Your task to perform on an android device: turn off location Image 0: 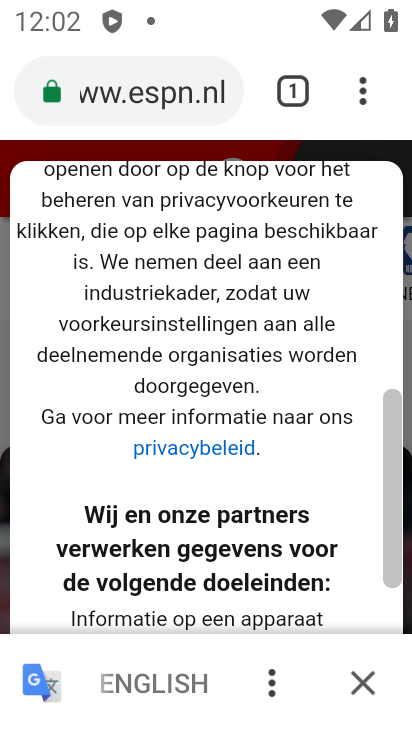
Step 0: press home button
Your task to perform on an android device: turn off location Image 1: 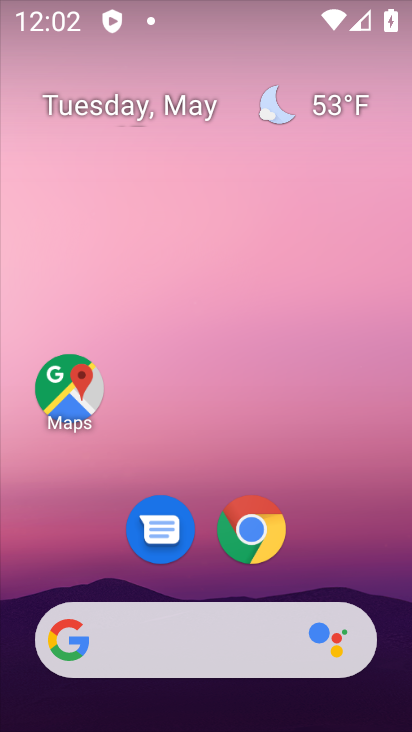
Step 1: drag from (203, 591) to (192, 34)
Your task to perform on an android device: turn off location Image 2: 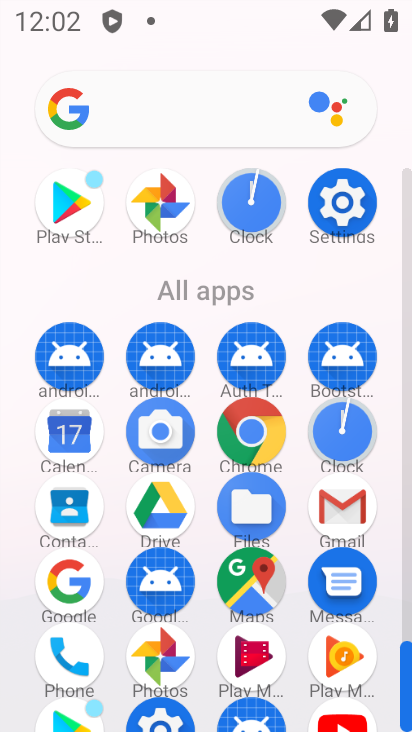
Step 2: click (334, 183)
Your task to perform on an android device: turn off location Image 3: 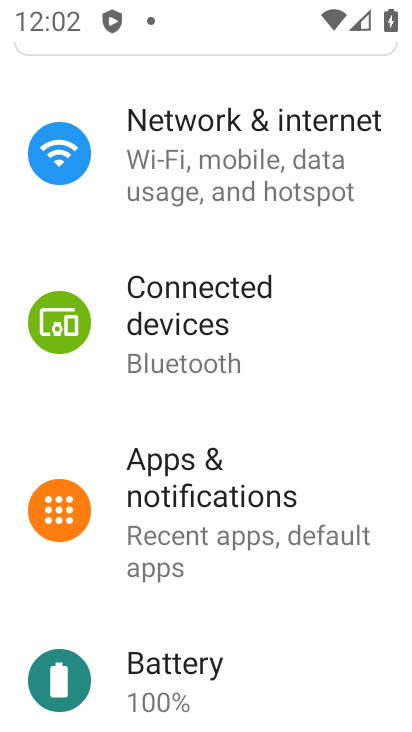
Step 3: drag from (126, 619) to (177, 227)
Your task to perform on an android device: turn off location Image 4: 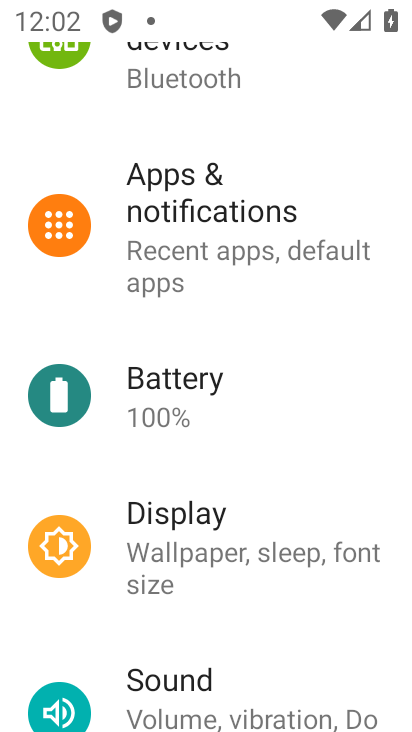
Step 4: drag from (220, 671) to (303, 248)
Your task to perform on an android device: turn off location Image 5: 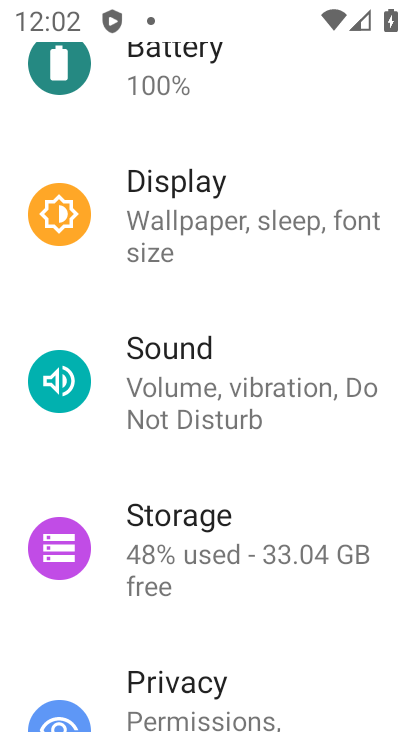
Step 5: drag from (103, 617) to (188, 144)
Your task to perform on an android device: turn off location Image 6: 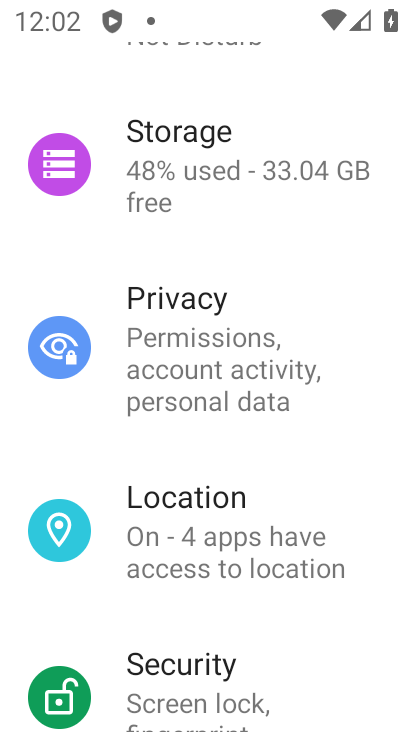
Step 6: click (162, 505)
Your task to perform on an android device: turn off location Image 7: 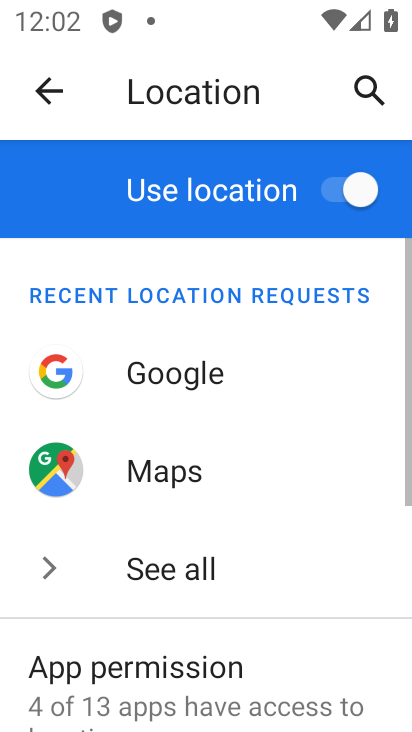
Step 7: click (347, 202)
Your task to perform on an android device: turn off location Image 8: 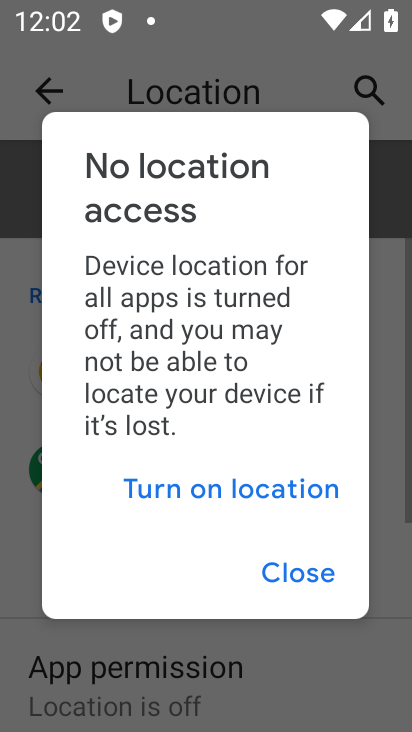
Step 8: task complete